Your task to perform on an android device: set default search engine in the chrome app Image 0: 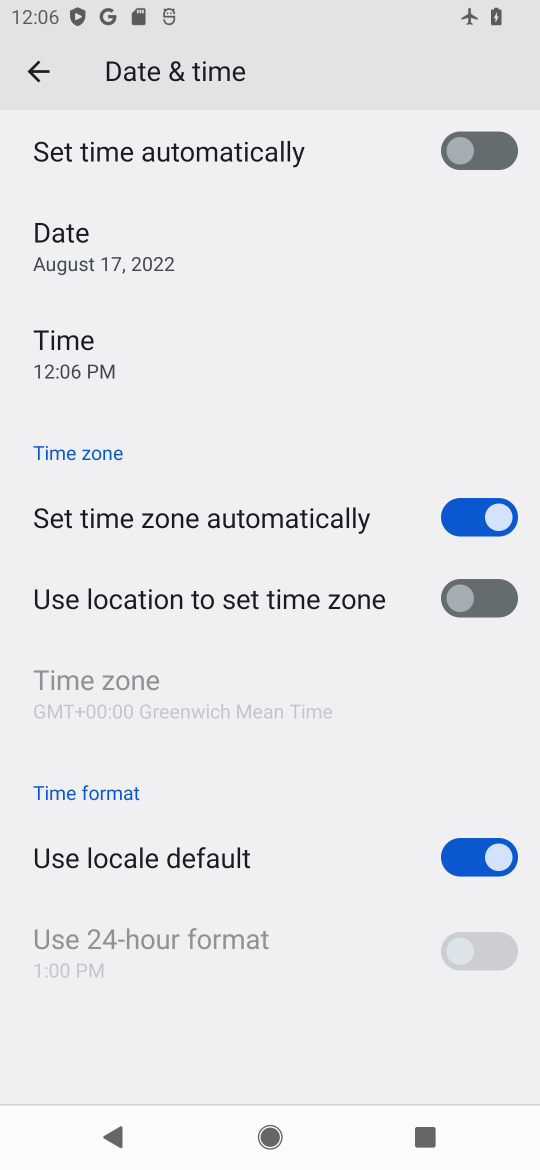
Step 0: press home button
Your task to perform on an android device: set default search engine in the chrome app Image 1: 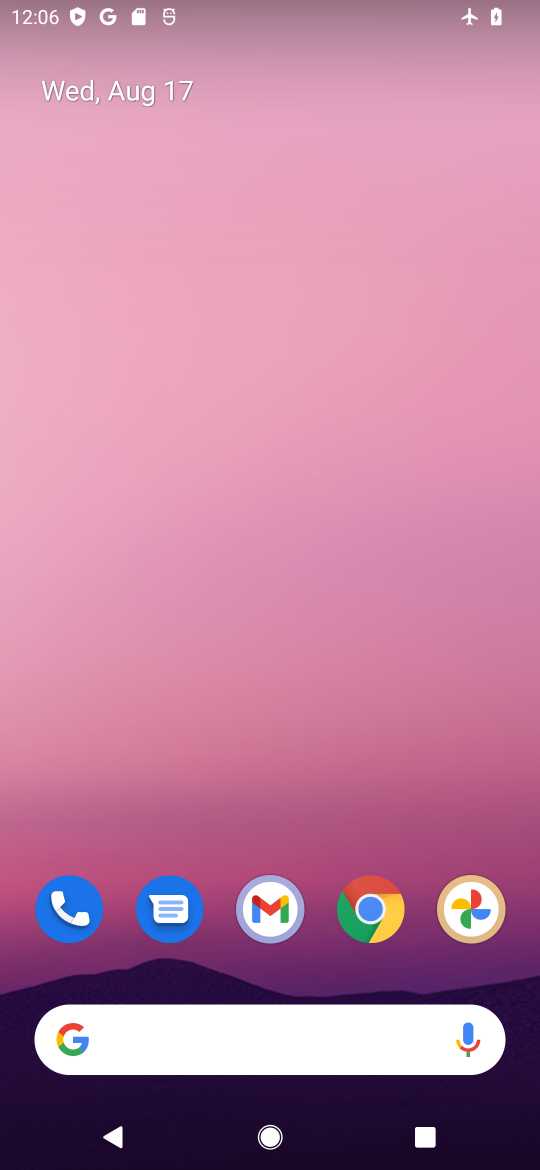
Step 1: click (375, 906)
Your task to perform on an android device: set default search engine in the chrome app Image 2: 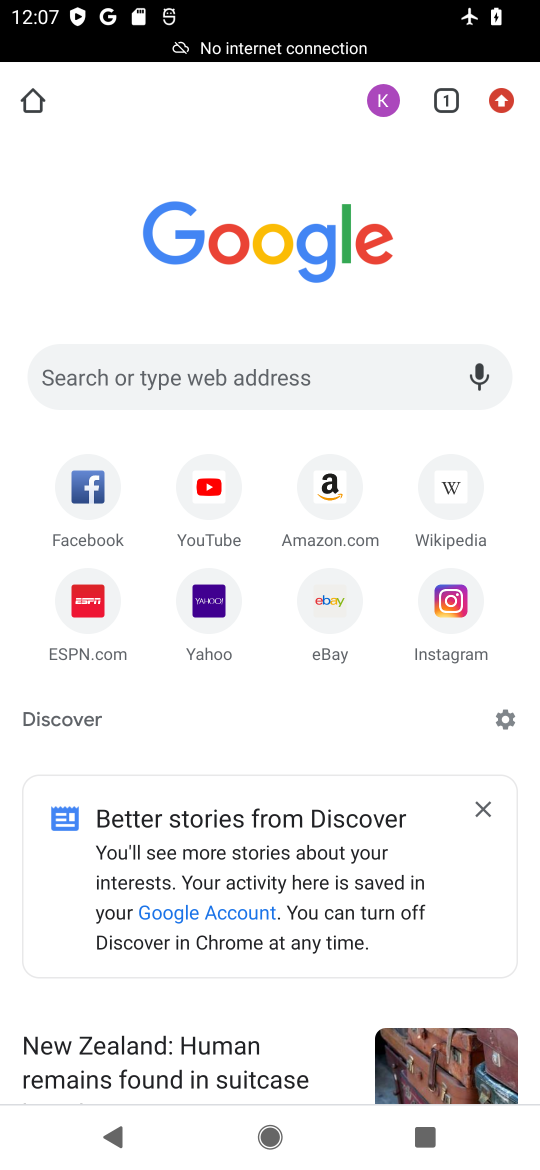
Step 2: click (500, 96)
Your task to perform on an android device: set default search engine in the chrome app Image 3: 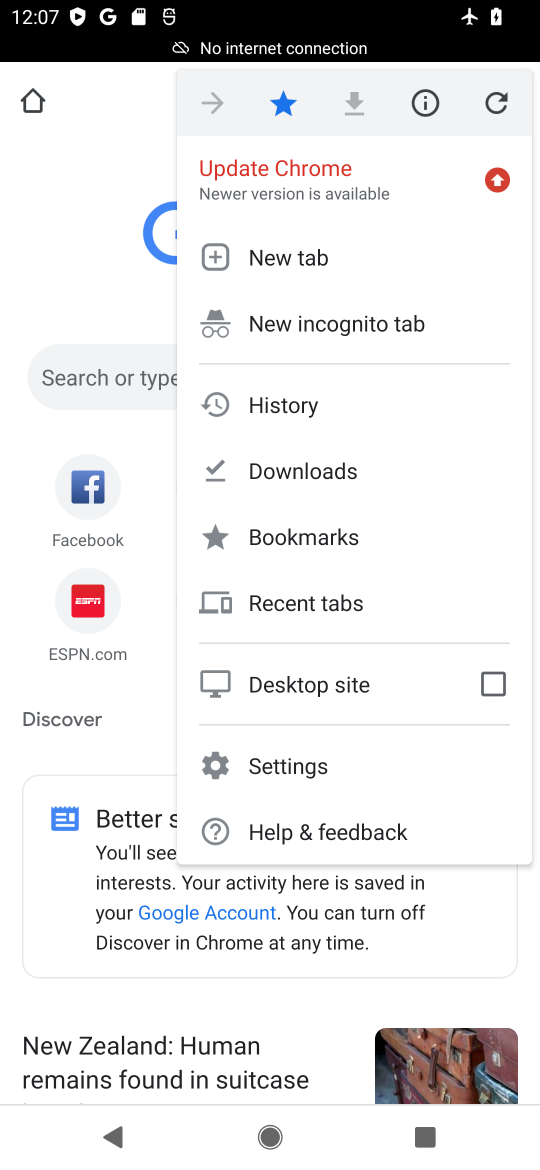
Step 3: click (265, 753)
Your task to perform on an android device: set default search engine in the chrome app Image 4: 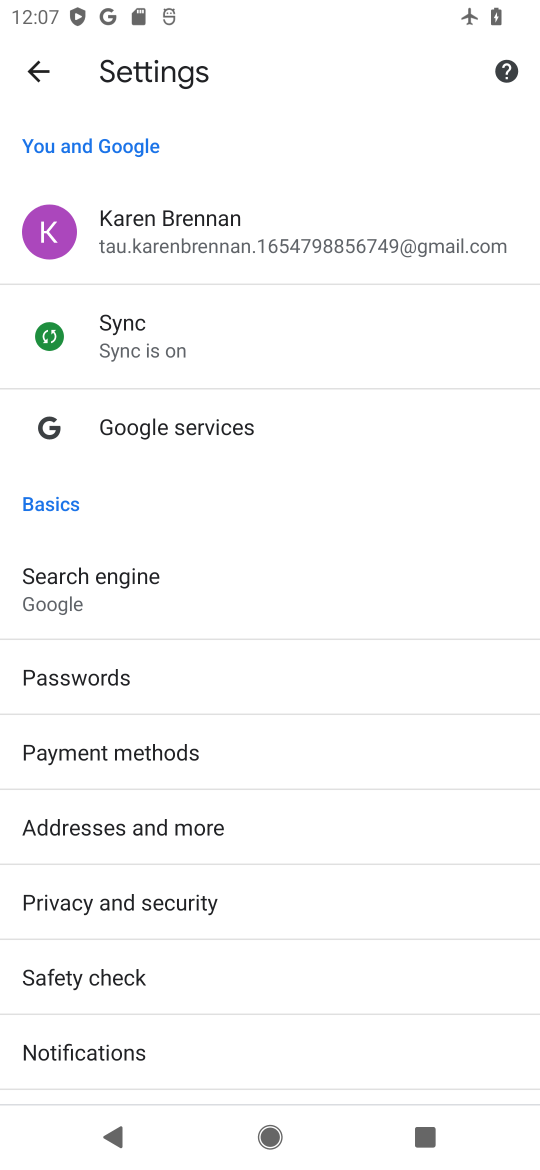
Step 4: click (119, 581)
Your task to perform on an android device: set default search engine in the chrome app Image 5: 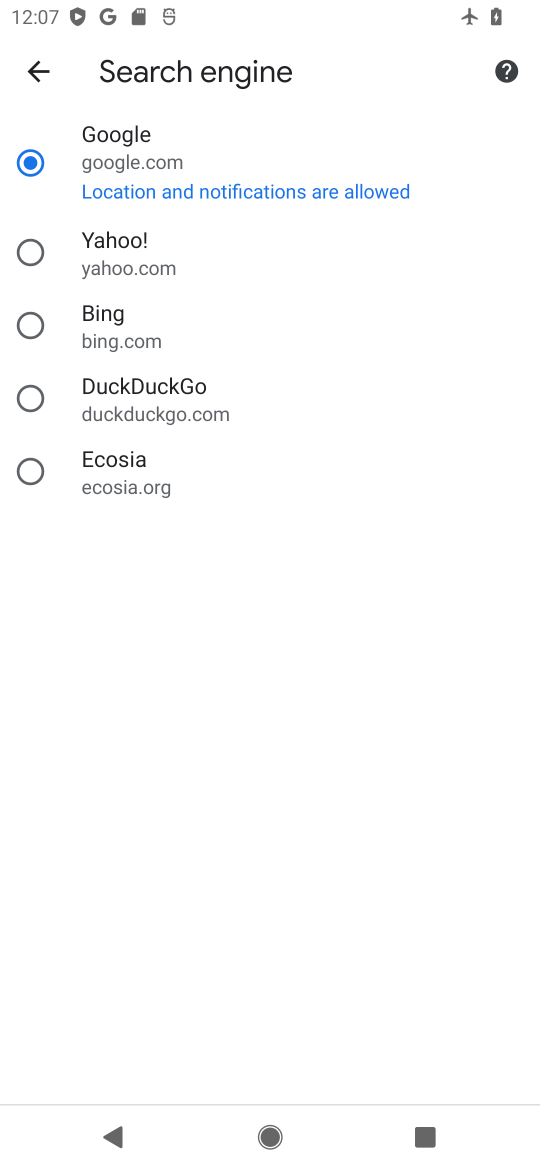
Step 5: task complete